Your task to perform on an android device: open app "Google Docs" Image 0: 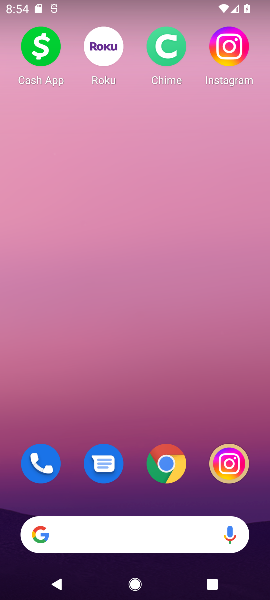
Step 0: drag from (103, 325) to (80, 111)
Your task to perform on an android device: open app "Google Docs" Image 1: 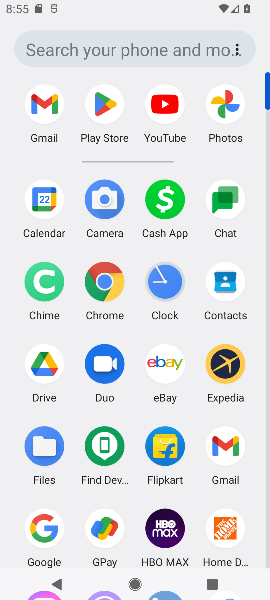
Step 1: click (101, 103)
Your task to perform on an android device: open app "Google Docs" Image 2: 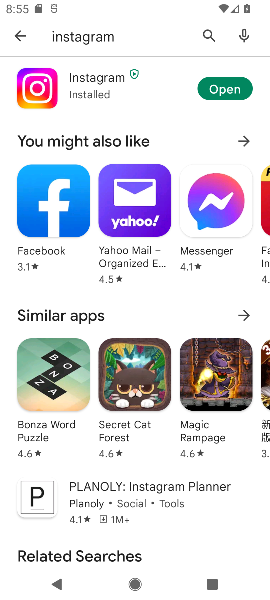
Step 2: click (25, 35)
Your task to perform on an android device: open app "Google Docs" Image 3: 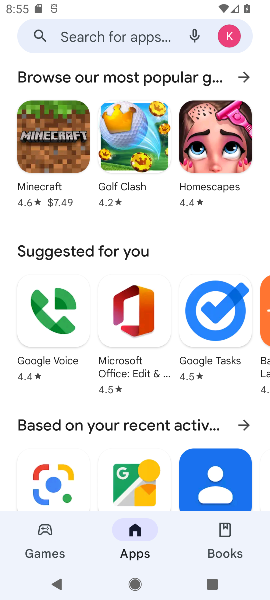
Step 3: click (56, 34)
Your task to perform on an android device: open app "Google Docs" Image 4: 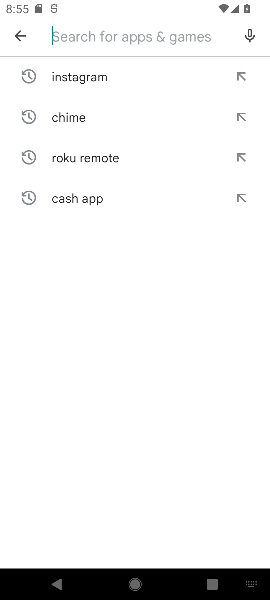
Step 4: type "Google Docs"
Your task to perform on an android device: open app "Google Docs" Image 5: 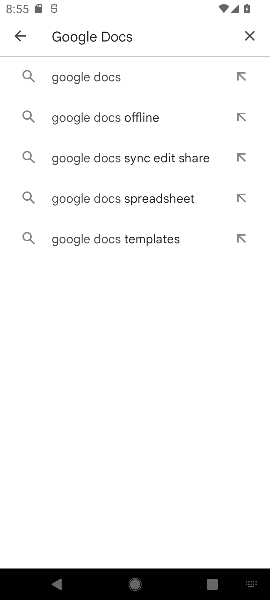
Step 5: click (100, 81)
Your task to perform on an android device: open app "Google Docs" Image 6: 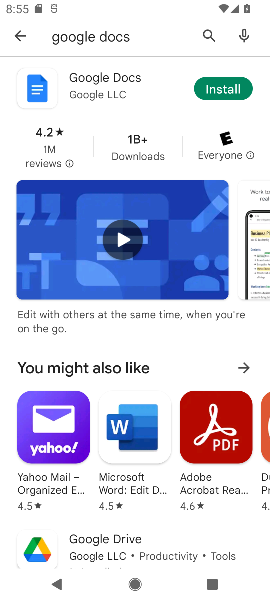
Step 6: click (236, 86)
Your task to perform on an android device: open app "Google Docs" Image 7: 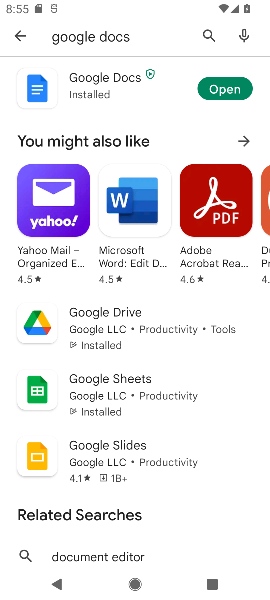
Step 7: click (235, 89)
Your task to perform on an android device: open app "Google Docs" Image 8: 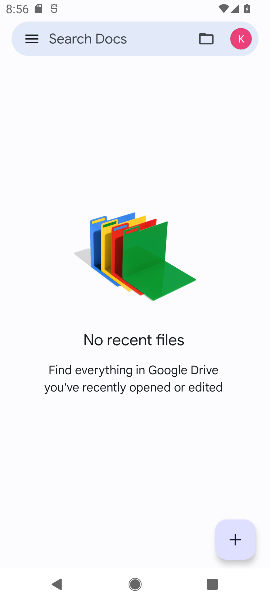
Step 8: task complete